Your task to perform on an android device: see sites visited before in the chrome app Image 0: 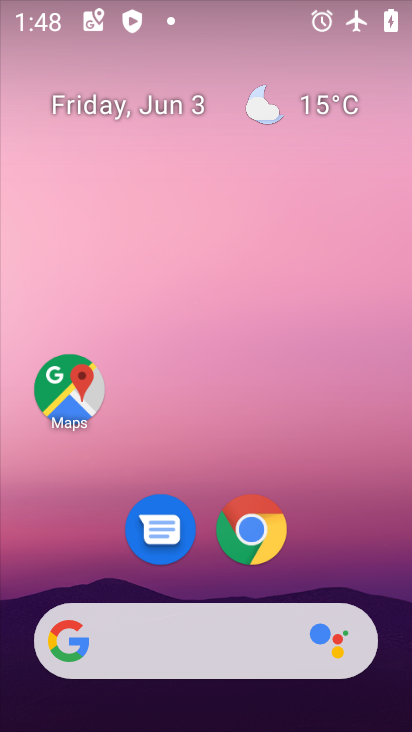
Step 0: drag from (371, 568) to (366, 168)
Your task to perform on an android device: see sites visited before in the chrome app Image 1: 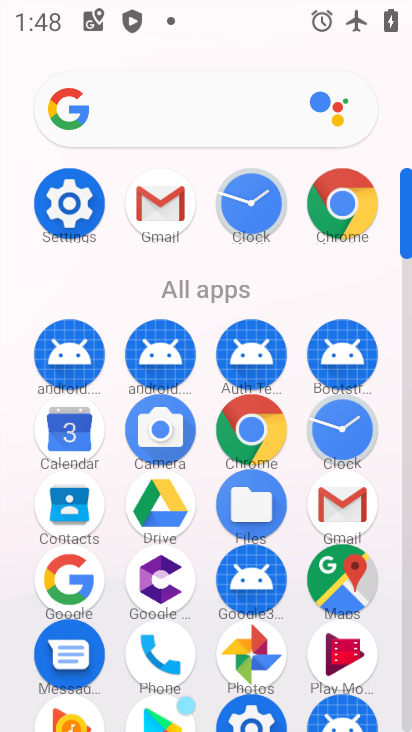
Step 1: click (237, 444)
Your task to perform on an android device: see sites visited before in the chrome app Image 2: 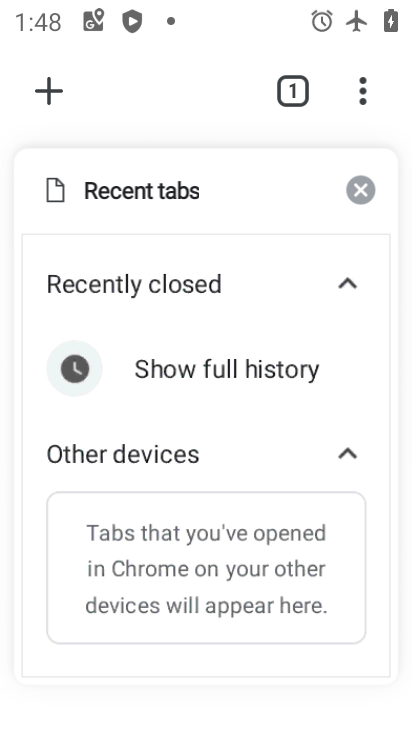
Step 2: press back button
Your task to perform on an android device: see sites visited before in the chrome app Image 3: 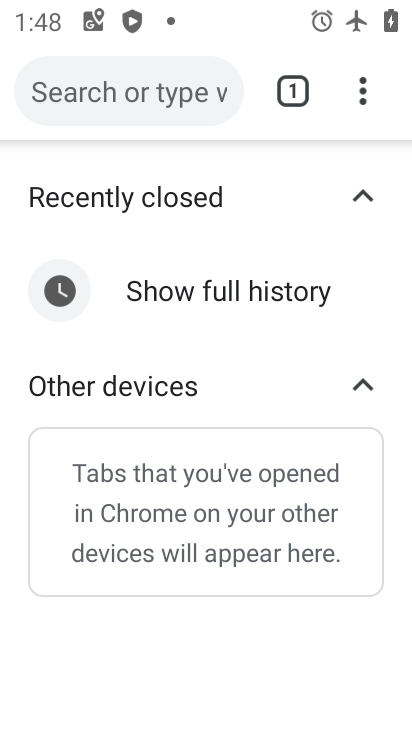
Step 3: click (362, 100)
Your task to perform on an android device: see sites visited before in the chrome app Image 4: 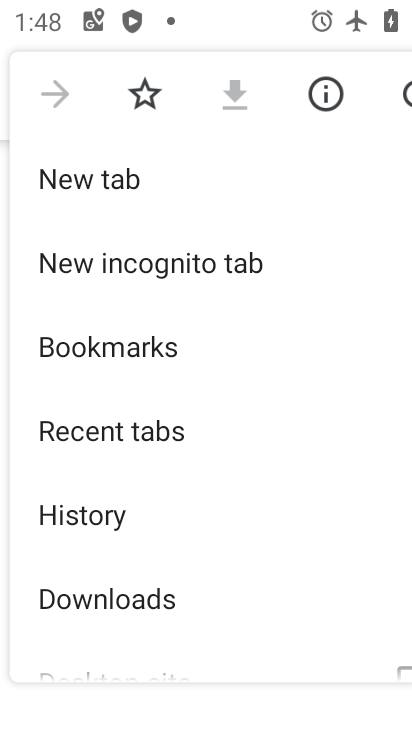
Step 4: drag from (312, 482) to (313, 335)
Your task to perform on an android device: see sites visited before in the chrome app Image 5: 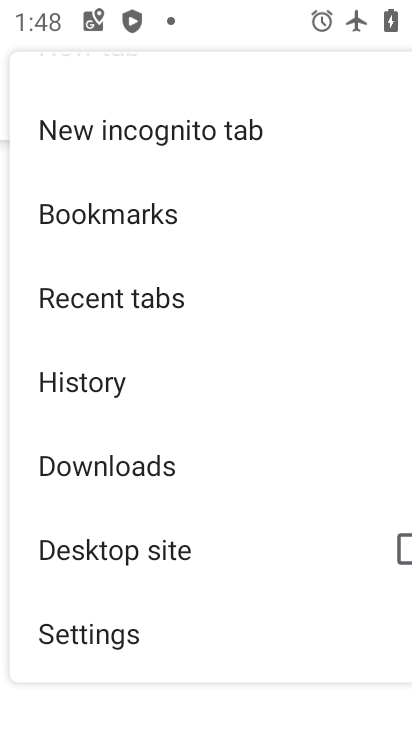
Step 5: click (167, 394)
Your task to perform on an android device: see sites visited before in the chrome app Image 6: 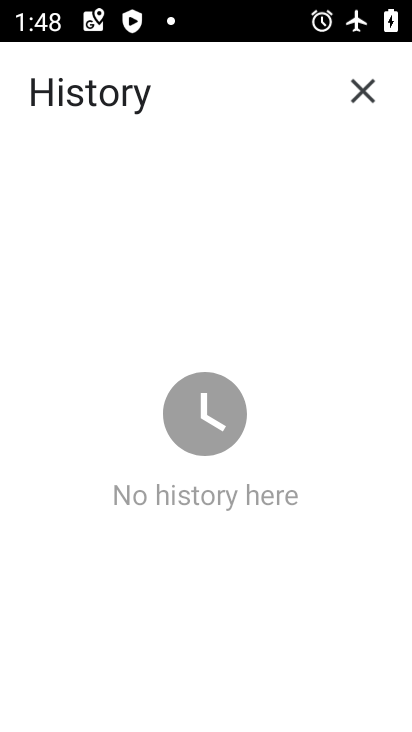
Step 6: task complete